Your task to perform on an android device: open app "Speedtest by Ookla" (install if not already installed) Image 0: 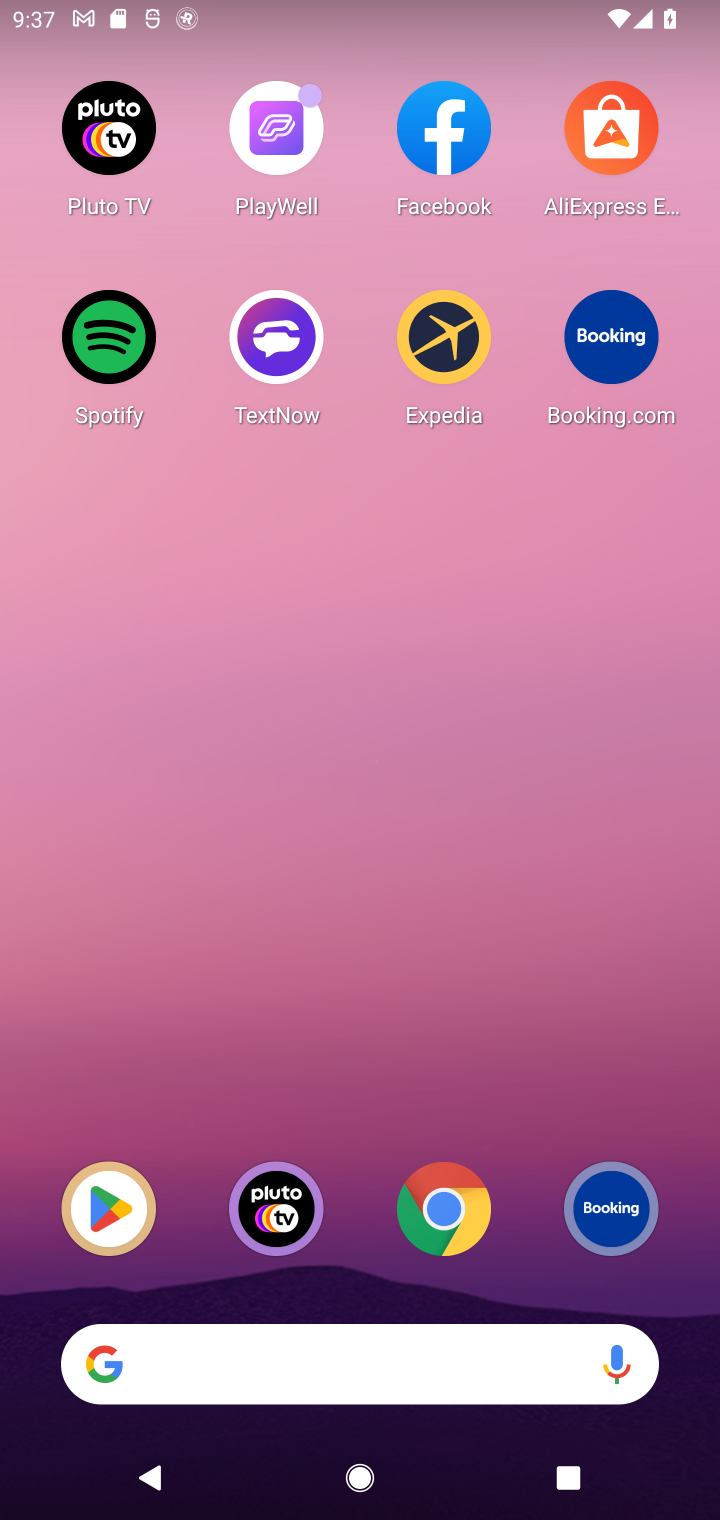
Step 0: press home button
Your task to perform on an android device: open app "Speedtest by Ookla" (install if not already installed) Image 1: 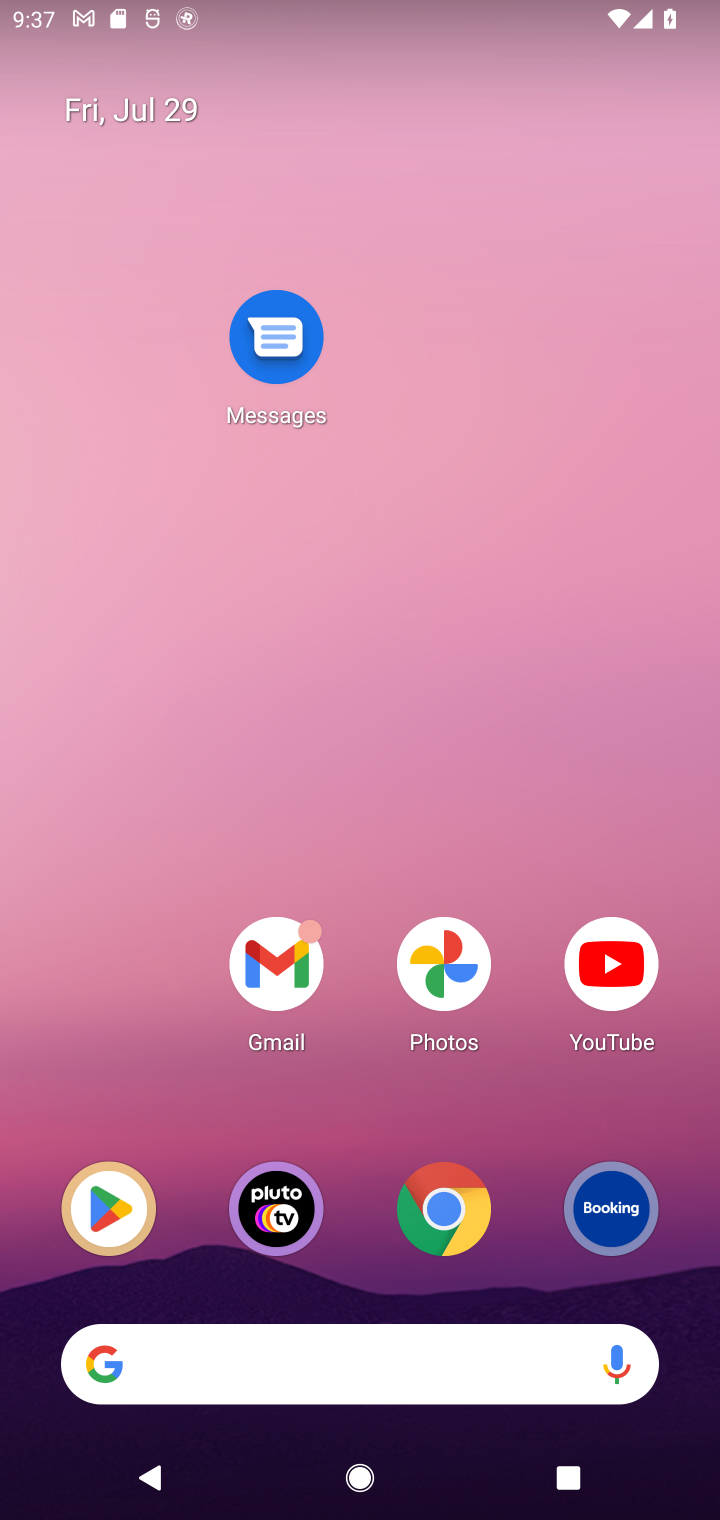
Step 1: drag from (302, 1339) to (398, 75)
Your task to perform on an android device: open app "Speedtest by Ookla" (install if not already installed) Image 2: 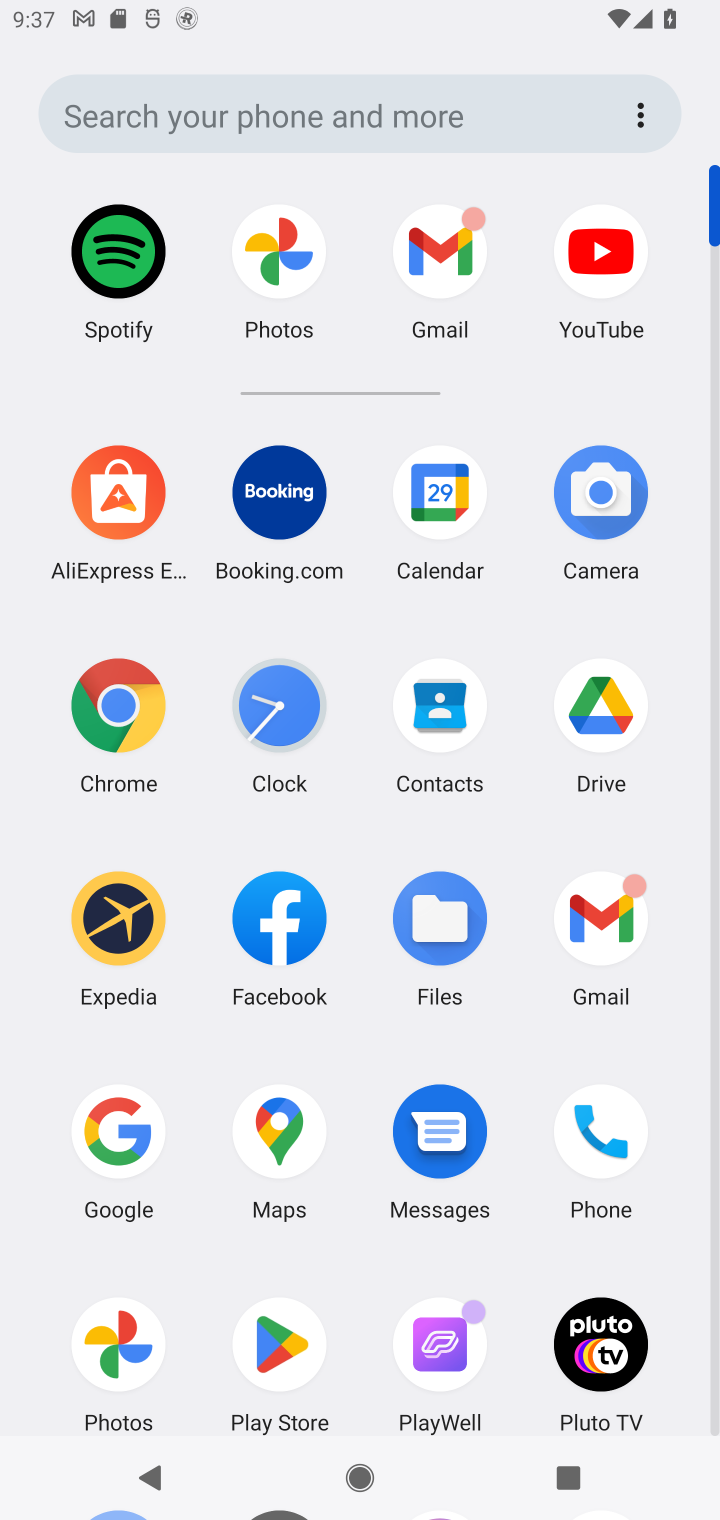
Step 2: click (276, 1347)
Your task to perform on an android device: open app "Speedtest by Ookla" (install if not already installed) Image 3: 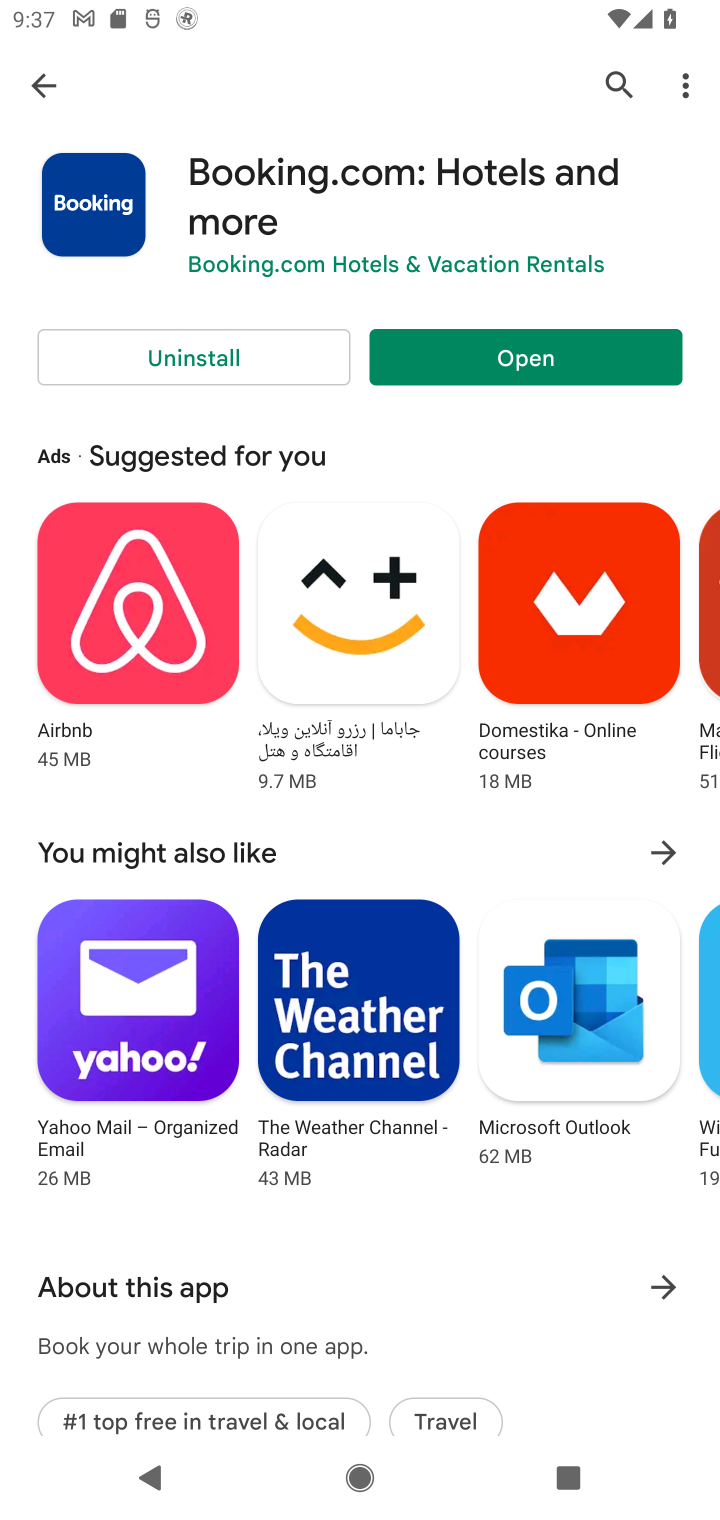
Step 3: click (619, 78)
Your task to perform on an android device: open app "Speedtest by Ookla" (install if not already installed) Image 4: 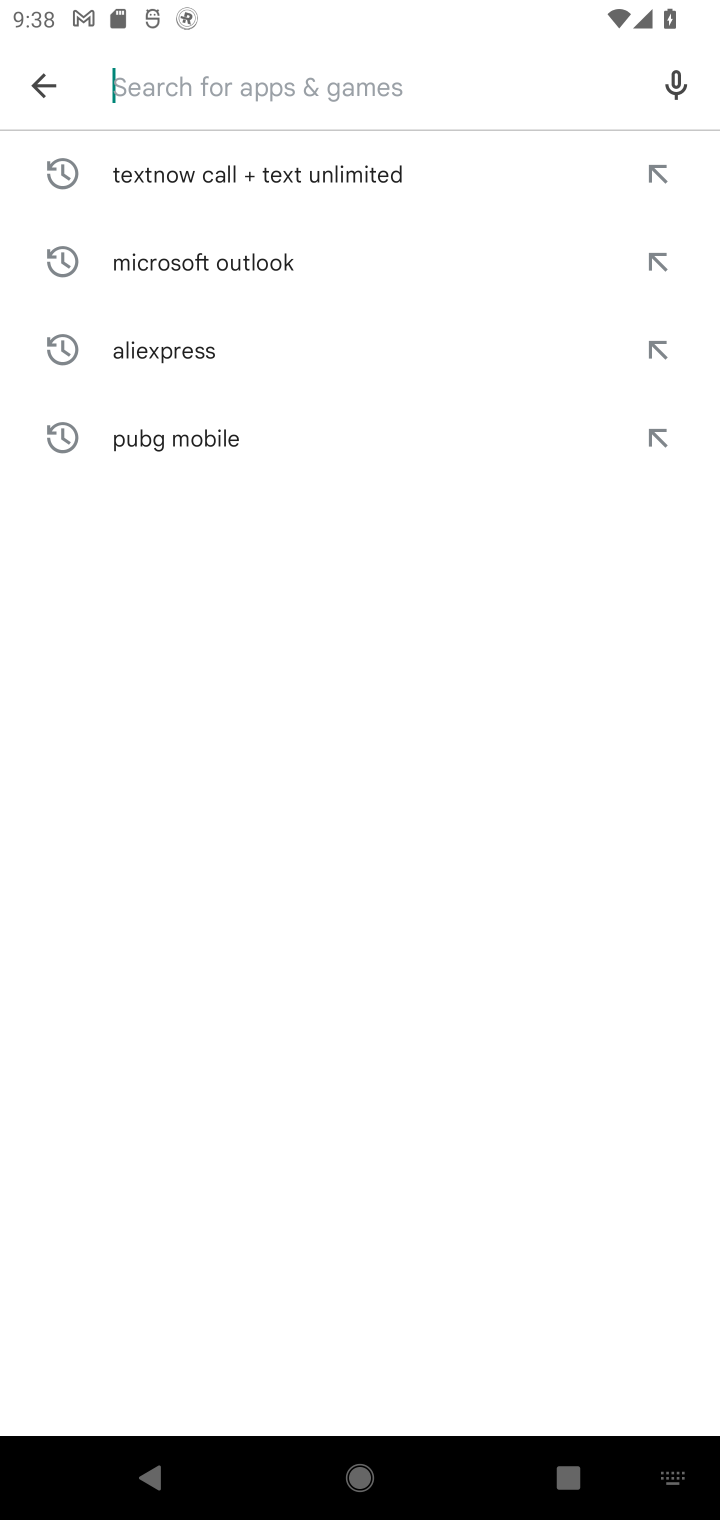
Step 4: click (350, 107)
Your task to perform on an android device: open app "Speedtest by Ookla" (install if not already installed) Image 5: 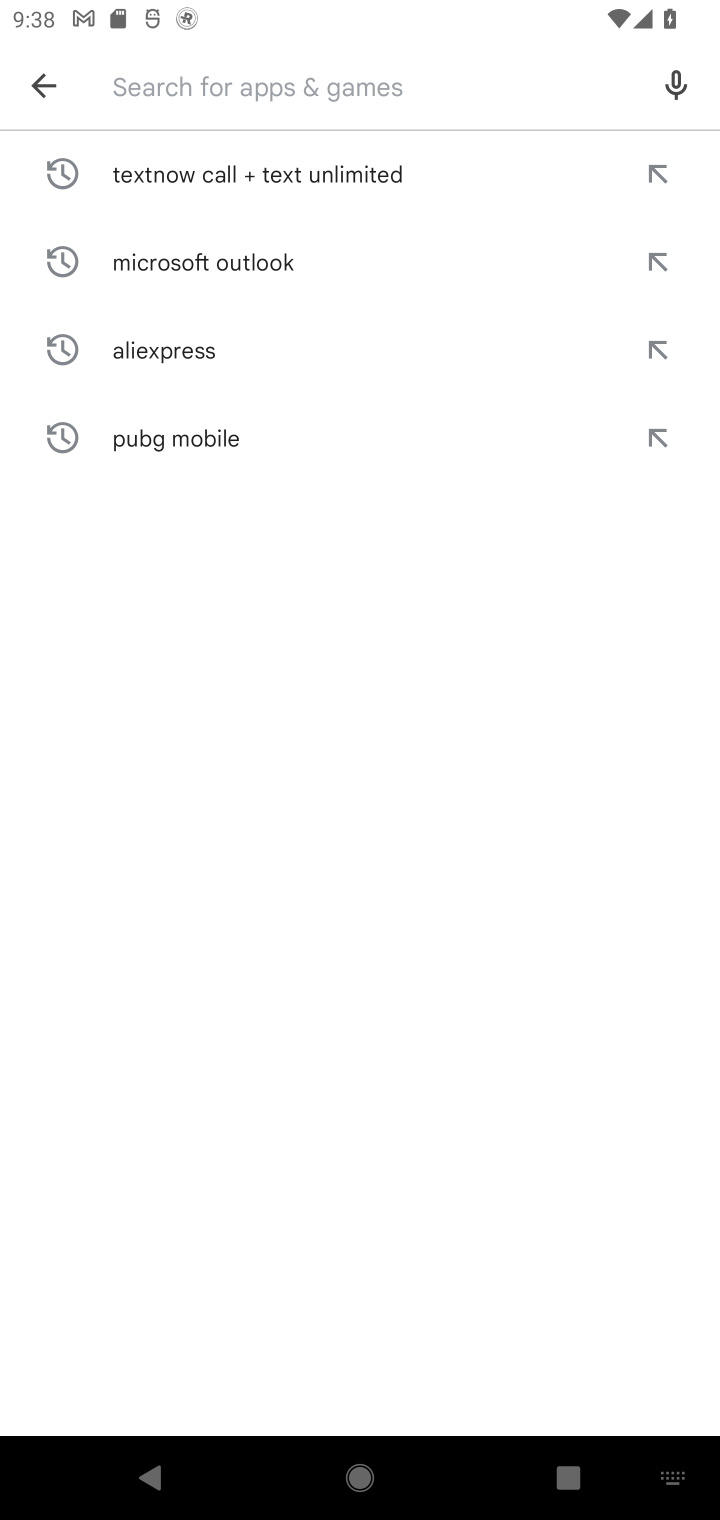
Step 5: type "Speedtest by Ookla"
Your task to perform on an android device: open app "Speedtest by Ookla" (install if not already installed) Image 6: 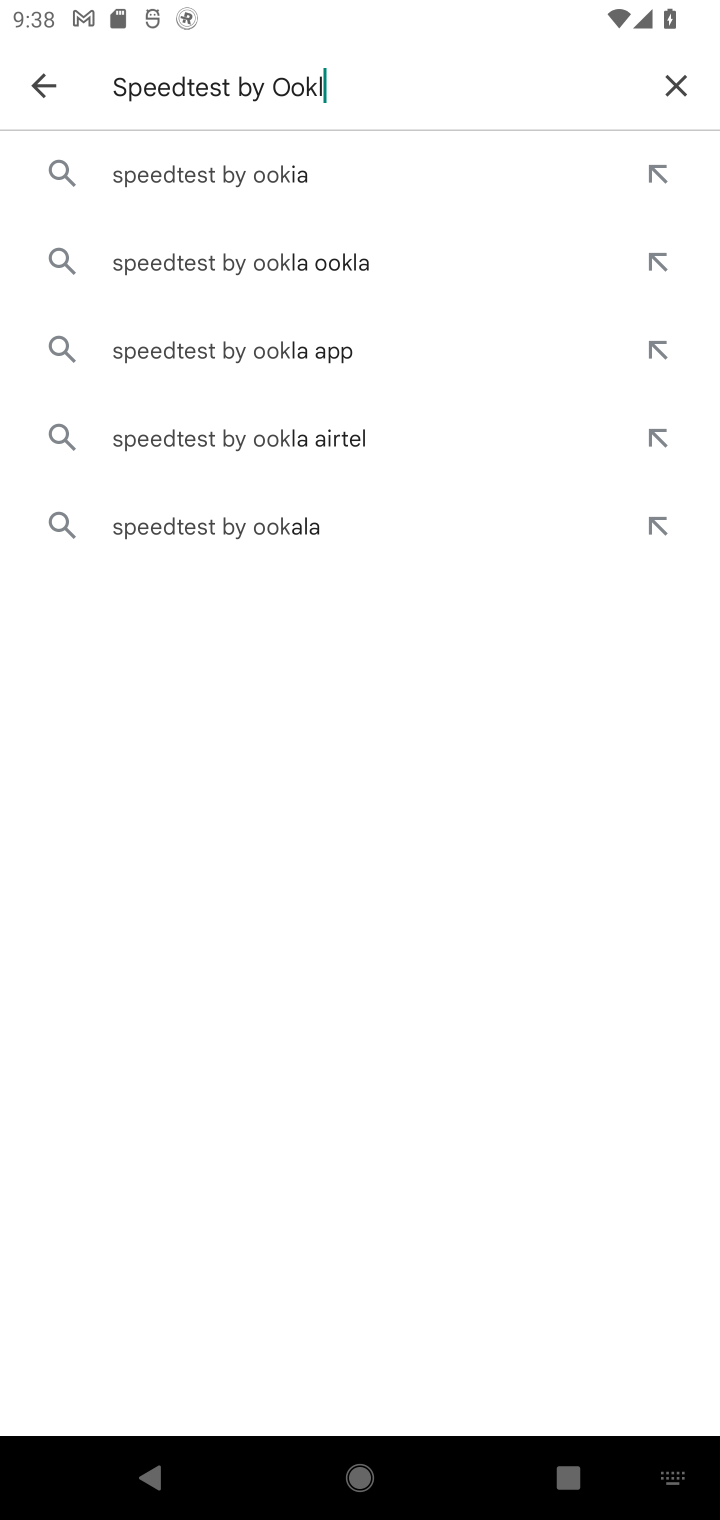
Step 6: type ""
Your task to perform on an android device: open app "Speedtest by Ookla" (install if not already installed) Image 7: 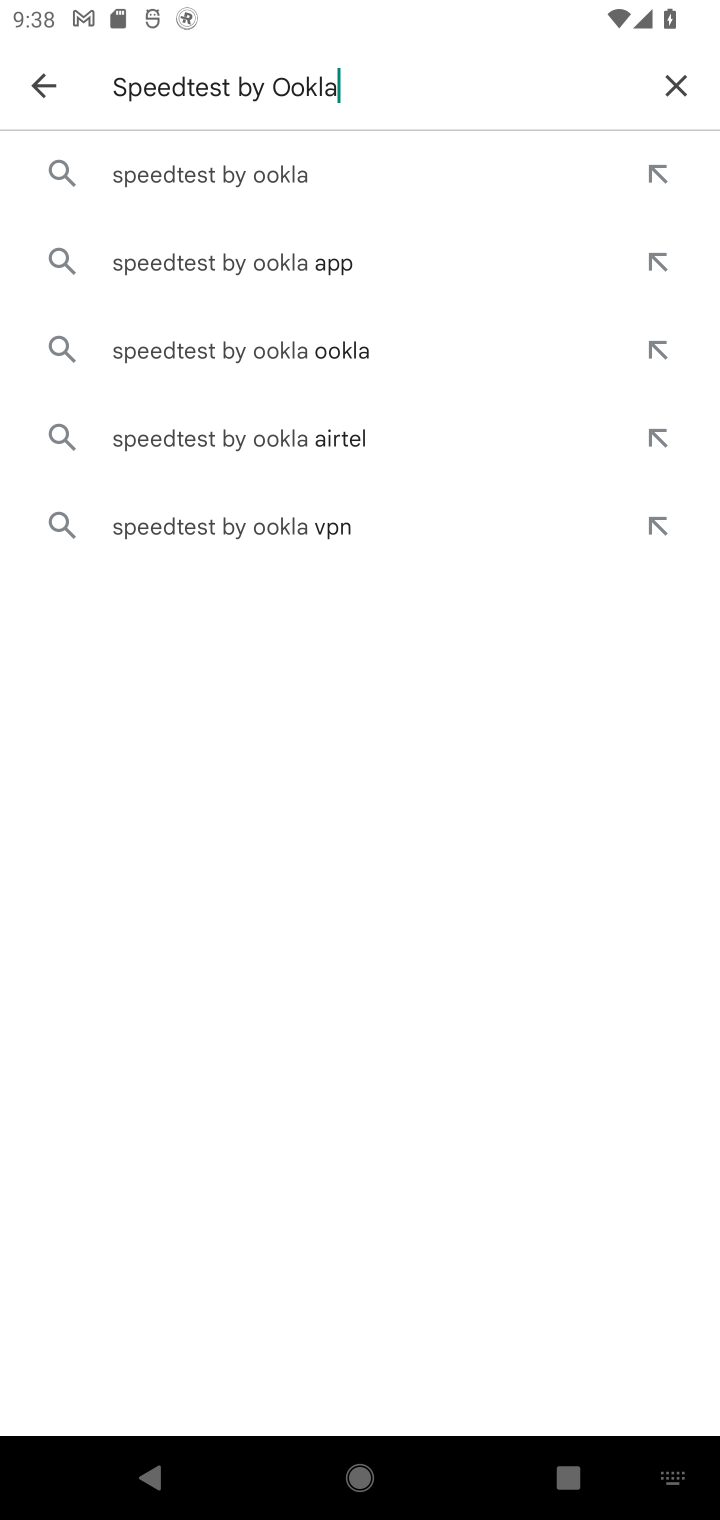
Step 7: click (269, 173)
Your task to perform on an android device: open app "Speedtest by Ookla" (install if not already installed) Image 8: 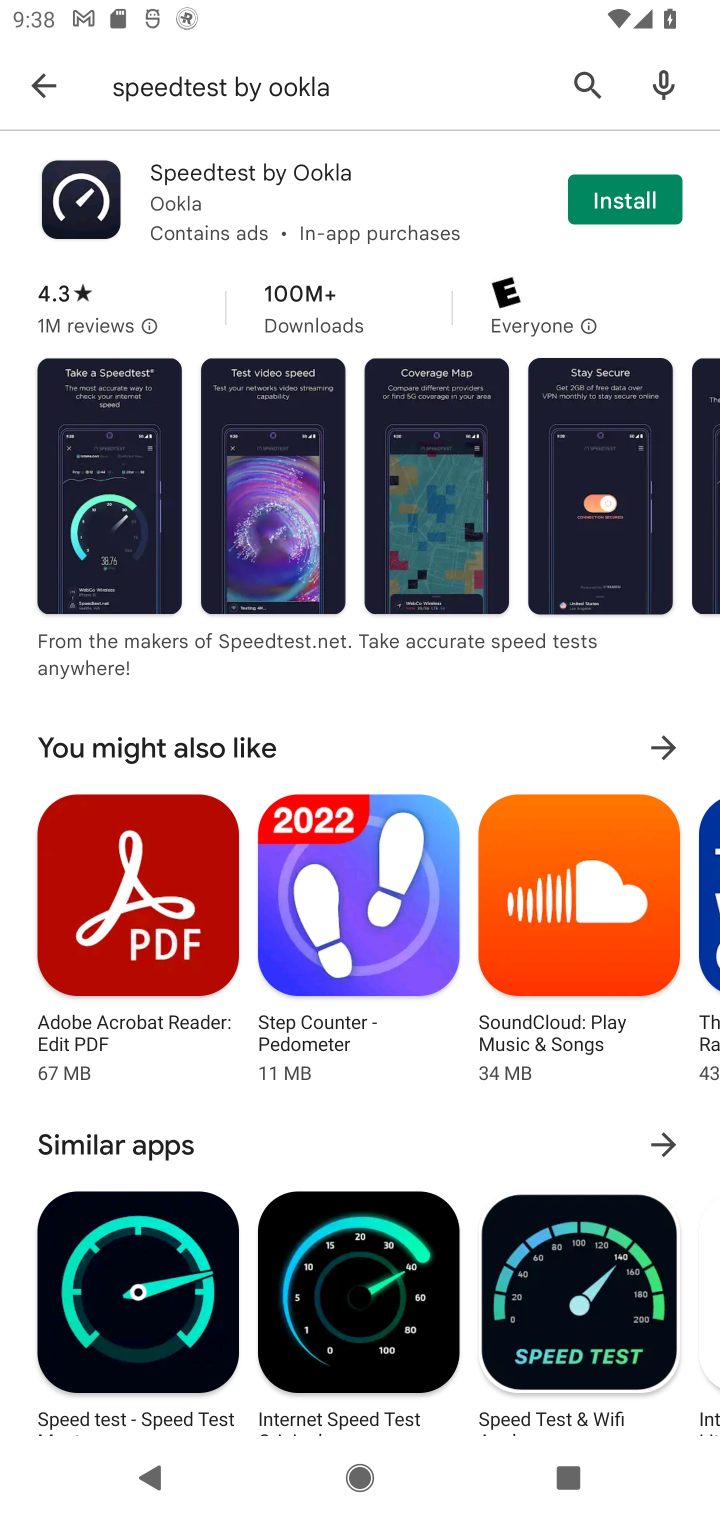
Step 8: click (616, 206)
Your task to perform on an android device: open app "Speedtest by Ookla" (install if not already installed) Image 9: 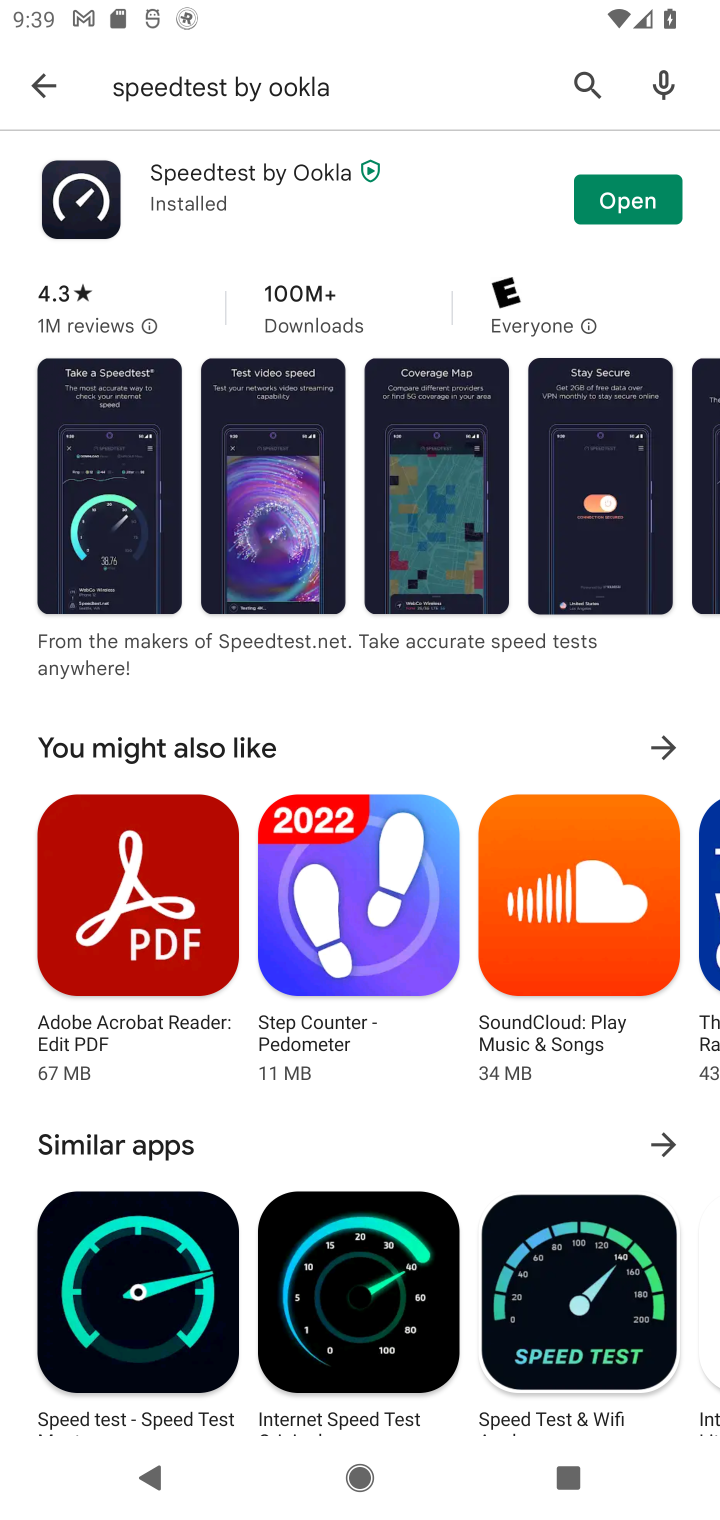
Step 9: click (628, 202)
Your task to perform on an android device: open app "Speedtest by Ookla" (install if not already installed) Image 10: 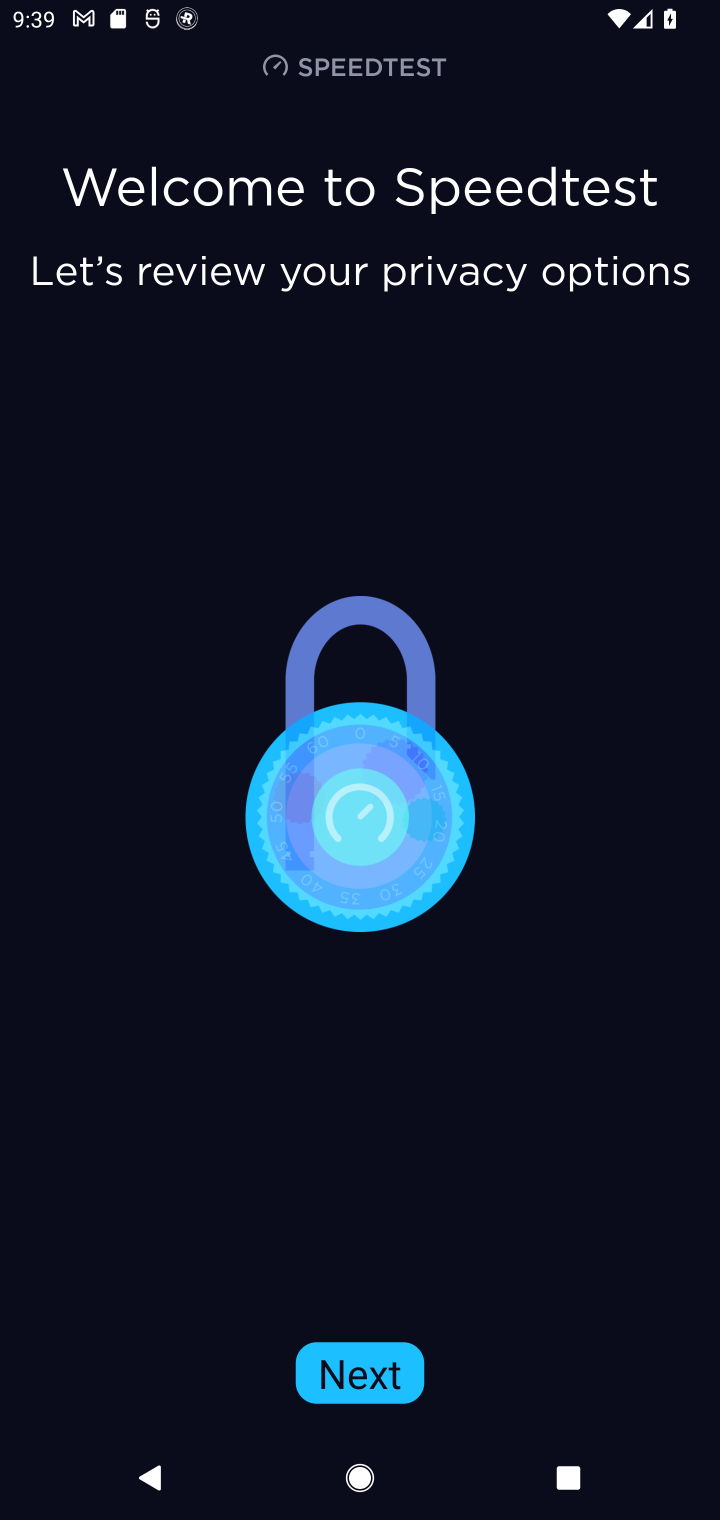
Step 10: task complete